Your task to perform on an android device: Open display settings Image 0: 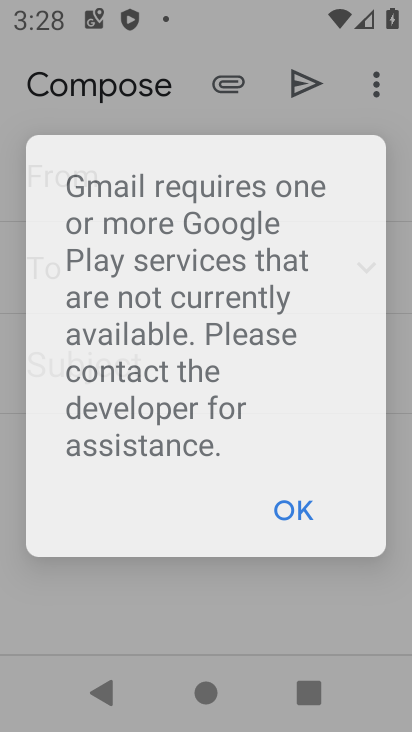
Step 0: drag from (284, 516) to (264, 118)
Your task to perform on an android device: Open display settings Image 1: 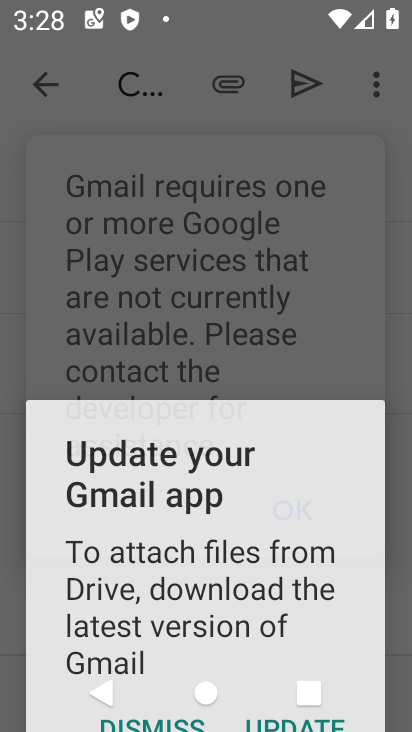
Step 1: press home button
Your task to perform on an android device: Open display settings Image 2: 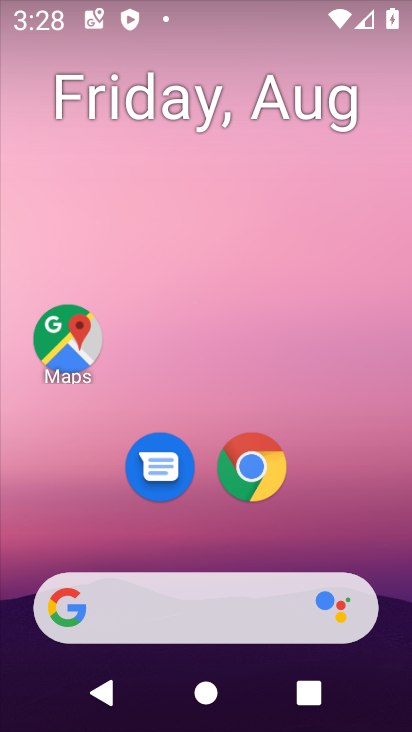
Step 2: drag from (328, 504) to (341, 70)
Your task to perform on an android device: Open display settings Image 3: 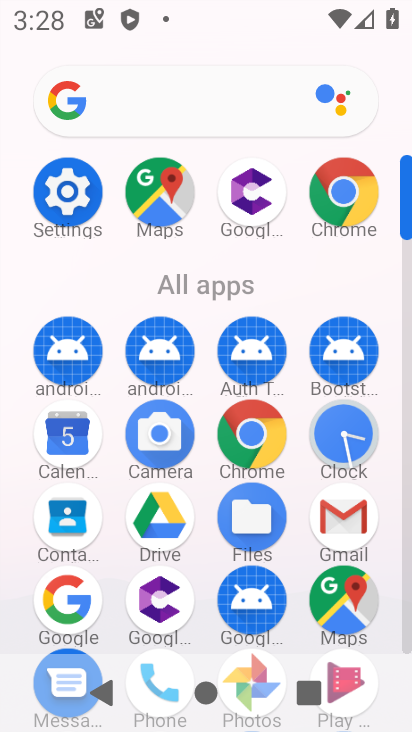
Step 3: click (72, 188)
Your task to perform on an android device: Open display settings Image 4: 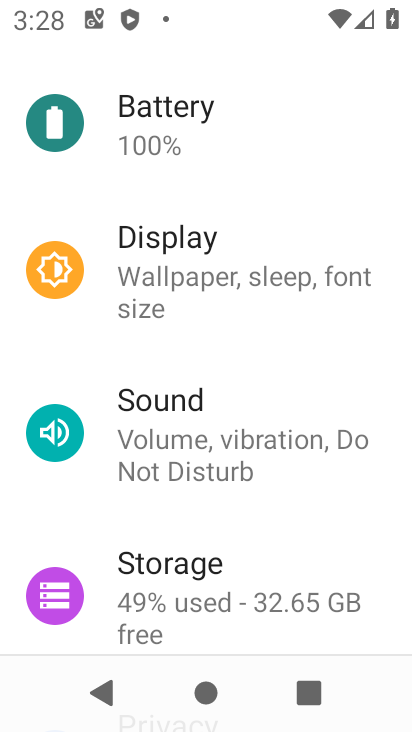
Step 4: click (145, 259)
Your task to perform on an android device: Open display settings Image 5: 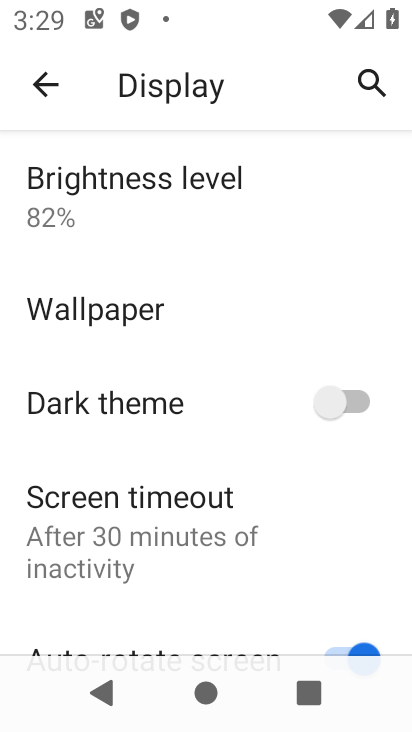
Step 5: task complete